Your task to perform on an android device: toggle wifi Image 0: 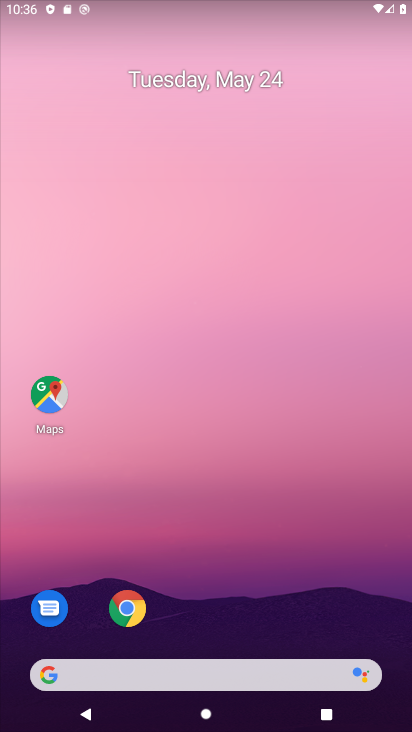
Step 0: drag from (388, 633) to (296, 111)
Your task to perform on an android device: toggle wifi Image 1: 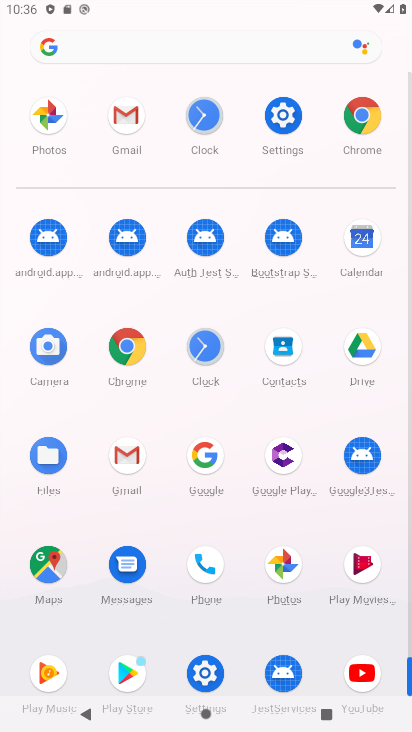
Step 1: click (205, 673)
Your task to perform on an android device: toggle wifi Image 2: 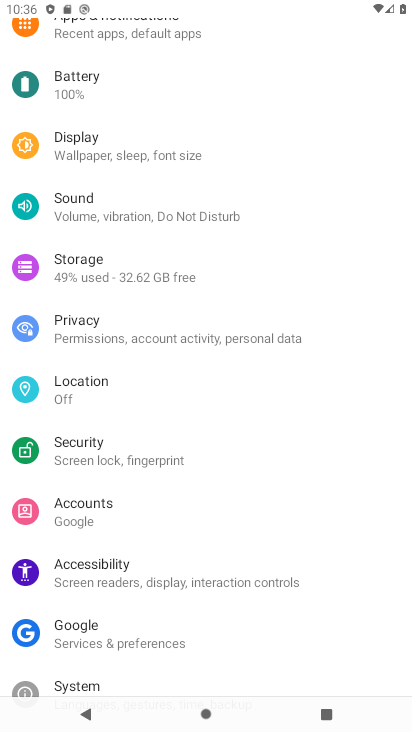
Step 2: drag from (317, 116) to (346, 432)
Your task to perform on an android device: toggle wifi Image 3: 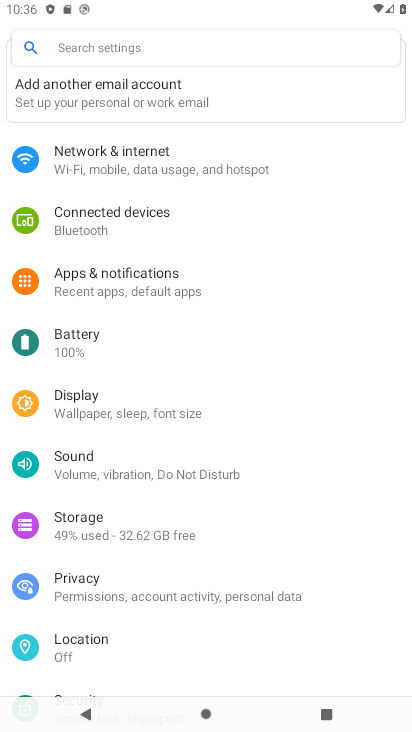
Step 3: click (86, 157)
Your task to perform on an android device: toggle wifi Image 4: 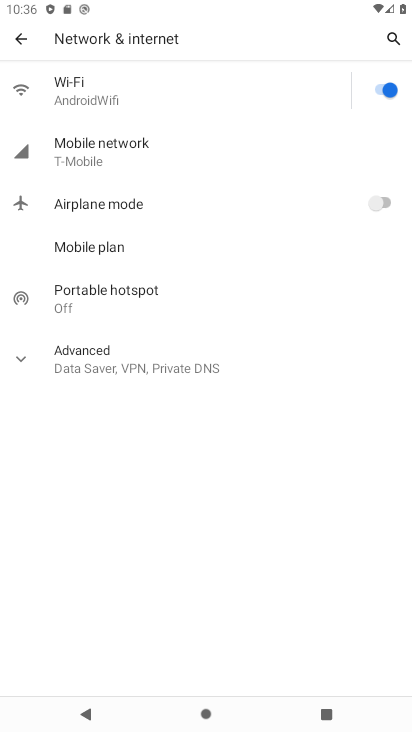
Step 4: click (380, 90)
Your task to perform on an android device: toggle wifi Image 5: 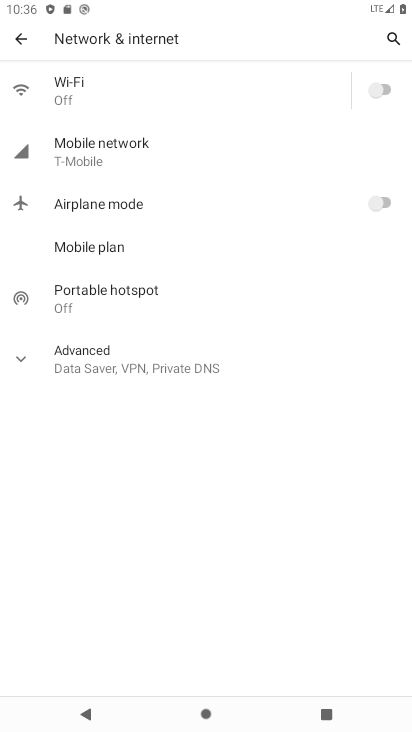
Step 5: task complete